Your task to perform on an android device: Open the phone app and click the voicemail tab. Image 0: 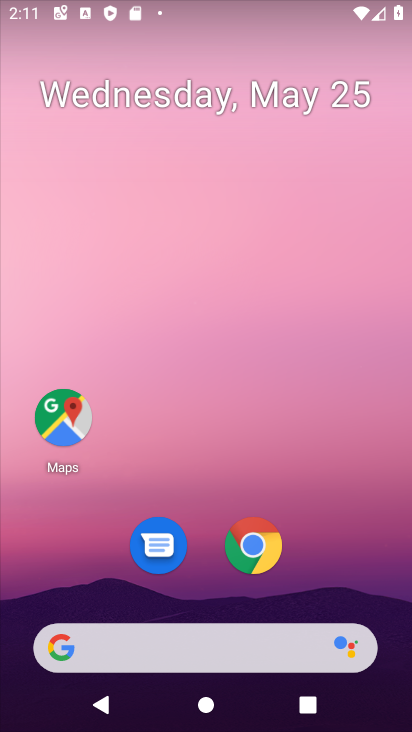
Step 0: drag from (356, 567) to (248, 76)
Your task to perform on an android device: Open the phone app and click the voicemail tab. Image 1: 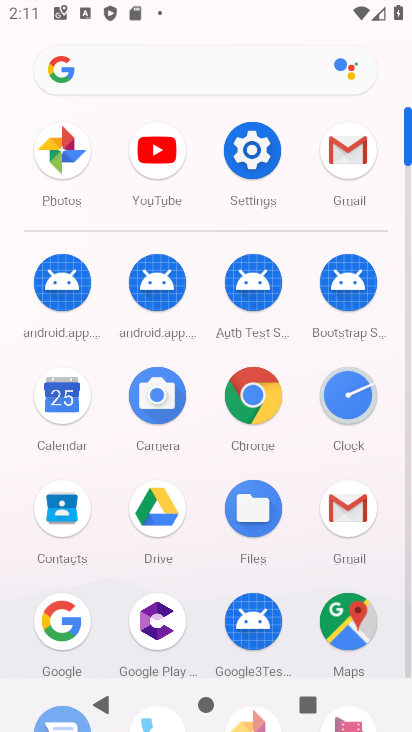
Step 1: click (408, 626)
Your task to perform on an android device: Open the phone app and click the voicemail tab. Image 2: 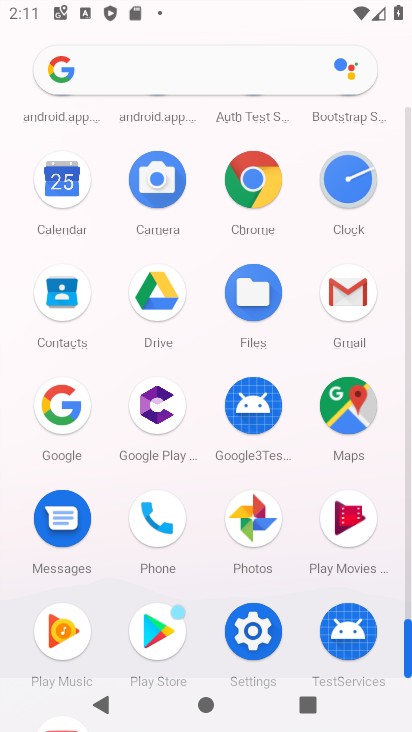
Step 2: click (169, 520)
Your task to perform on an android device: Open the phone app and click the voicemail tab. Image 3: 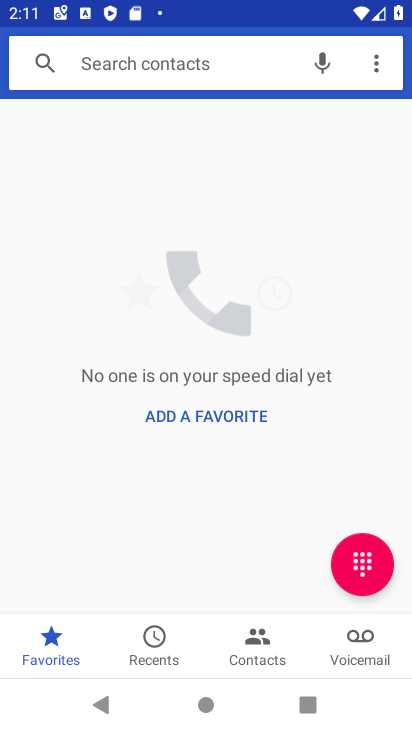
Step 3: click (365, 630)
Your task to perform on an android device: Open the phone app and click the voicemail tab. Image 4: 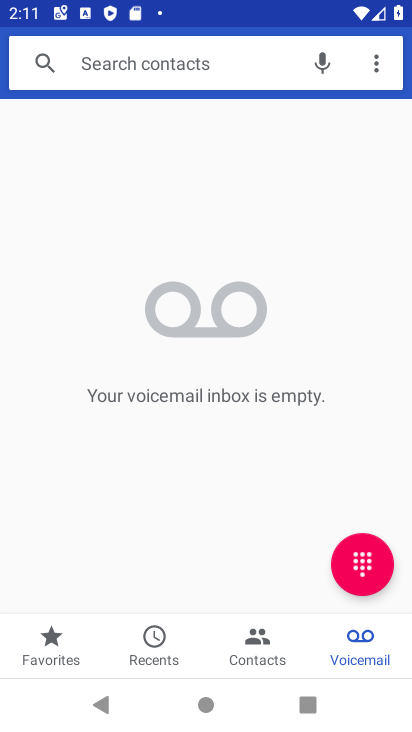
Step 4: task complete